Your task to perform on an android device: turn off priority inbox in the gmail app Image 0: 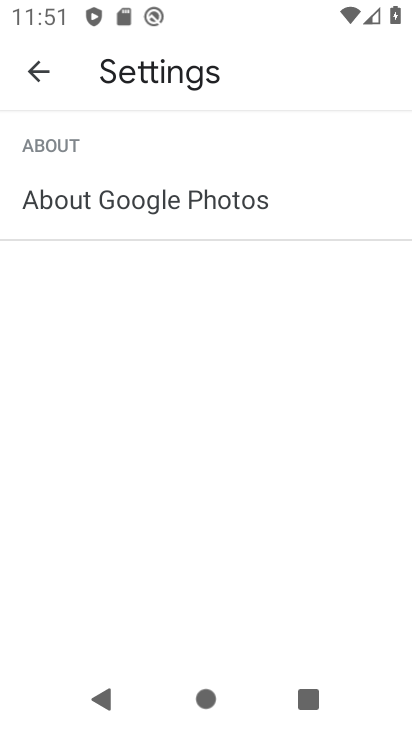
Step 0: press home button
Your task to perform on an android device: turn off priority inbox in the gmail app Image 1: 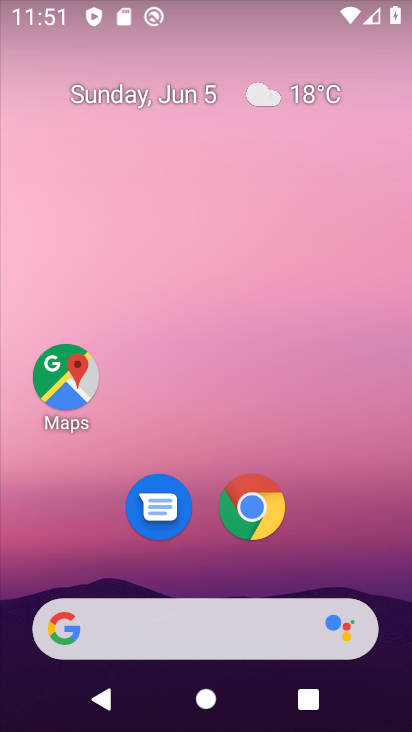
Step 1: drag from (177, 406) to (232, 16)
Your task to perform on an android device: turn off priority inbox in the gmail app Image 2: 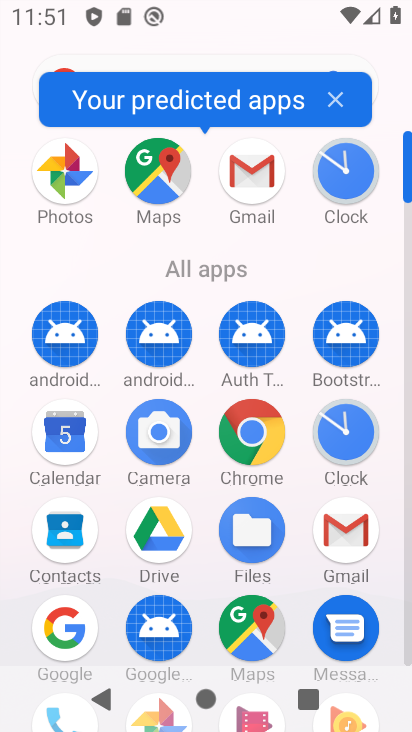
Step 2: click (342, 548)
Your task to perform on an android device: turn off priority inbox in the gmail app Image 3: 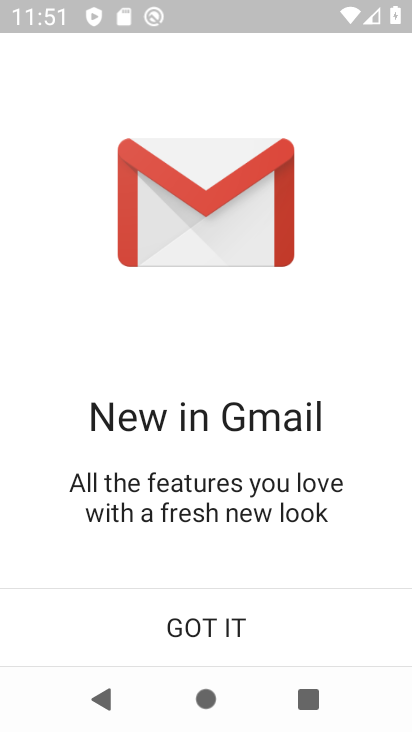
Step 3: click (269, 637)
Your task to perform on an android device: turn off priority inbox in the gmail app Image 4: 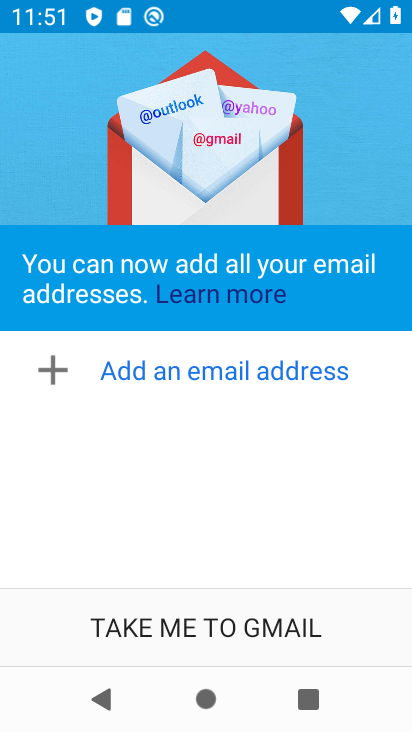
Step 4: click (266, 631)
Your task to perform on an android device: turn off priority inbox in the gmail app Image 5: 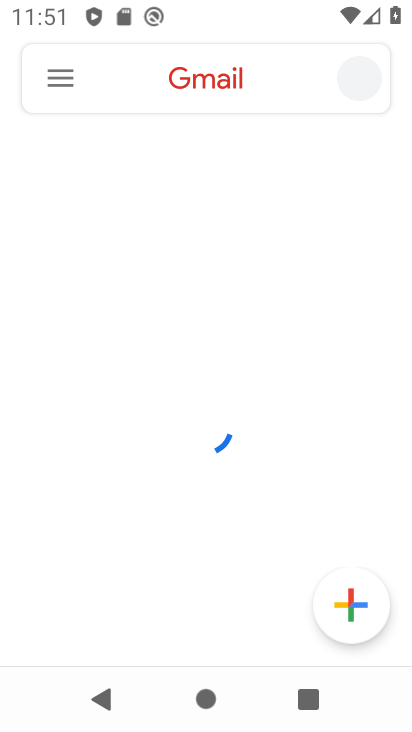
Step 5: click (54, 88)
Your task to perform on an android device: turn off priority inbox in the gmail app Image 6: 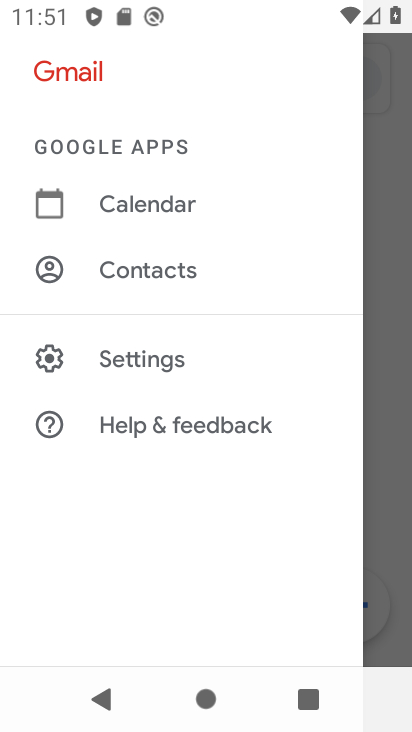
Step 6: click (163, 366)
Your task to perform on an android device: turn off priority inbox in the gmail app Image 7: 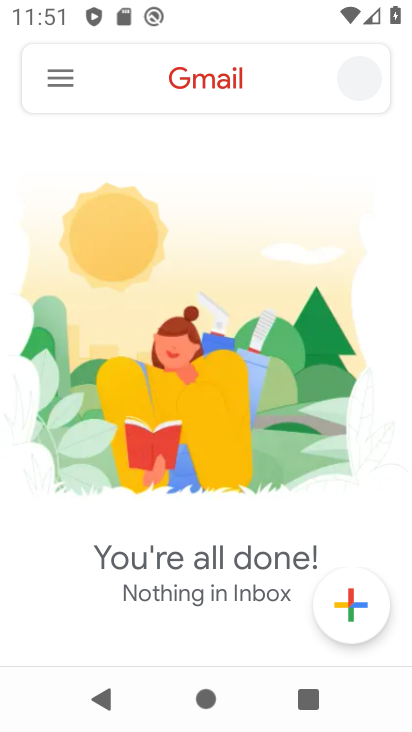
Step 7: drag from (162, 570) to (197, 393)
Your task to perform on an android device: turn off priority inbox in the gmail app Image 8: 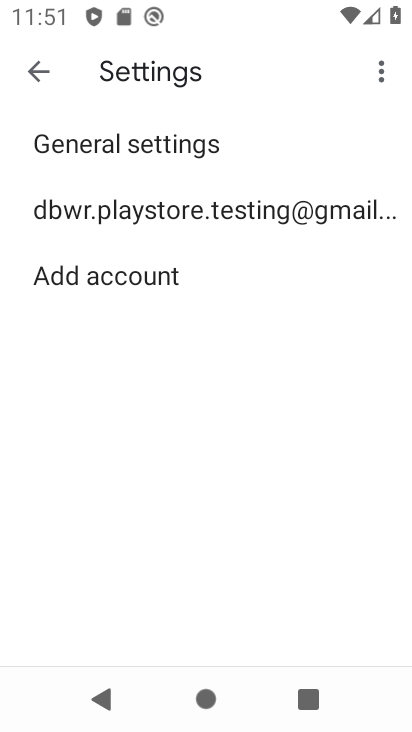
Step 8: click (147, 208)
Your task to perform on an android device: turn off priority inbox in the gmail app Image 9: 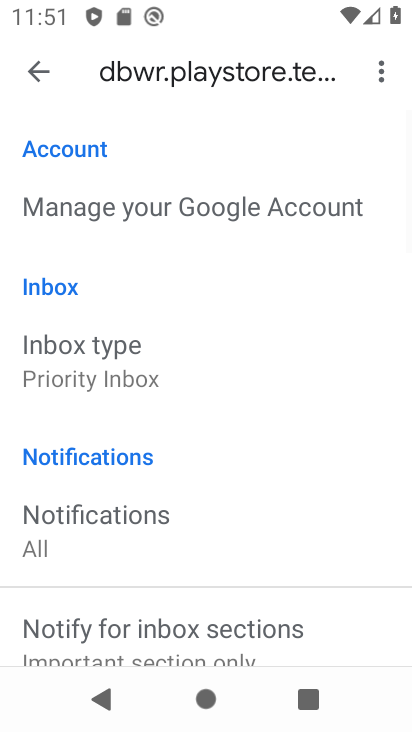
Step 9: click (97, 376)
Your task to perform on an android device: turn off priority inbox in the gmail app Image 10: 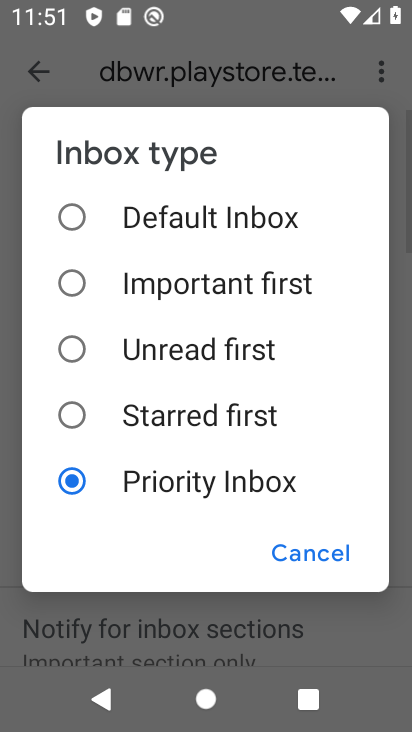
Step 10: click (141, 224)
Your task to perform on an android device: turn off priority inbox in the gmail app Image 11: 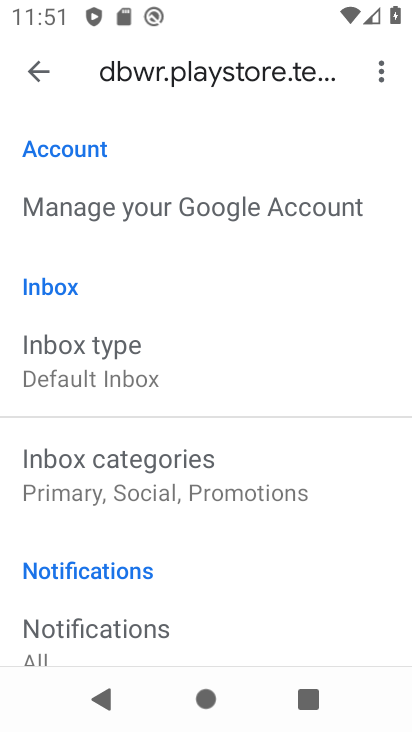
Step 11: task complete